Your task to perform on an android device: choose inbox layout in the gmail app Image 0: 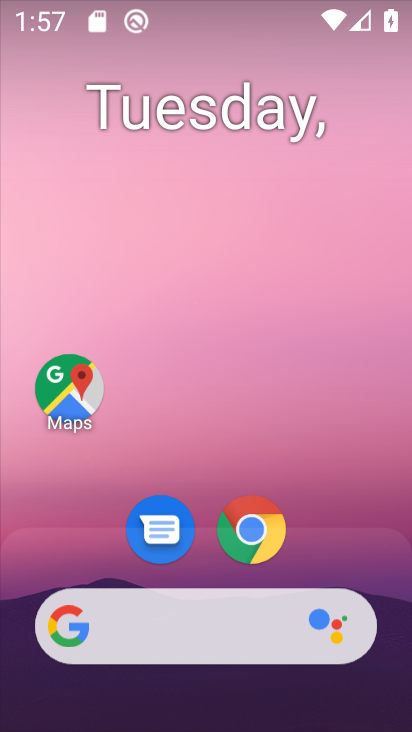
Step 0: drag from (194, 514) to (256, 311)
Your task to perform on an android device: choose inbox layout in the gmail app Image 1: 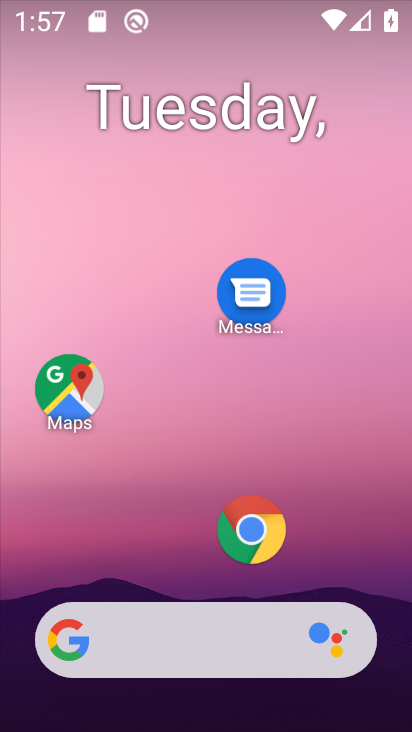
Step 1: drag from (166, 438) to (148, 137)
Your task to perform on an android device: choose inbox layout in the gmail app Image 2: 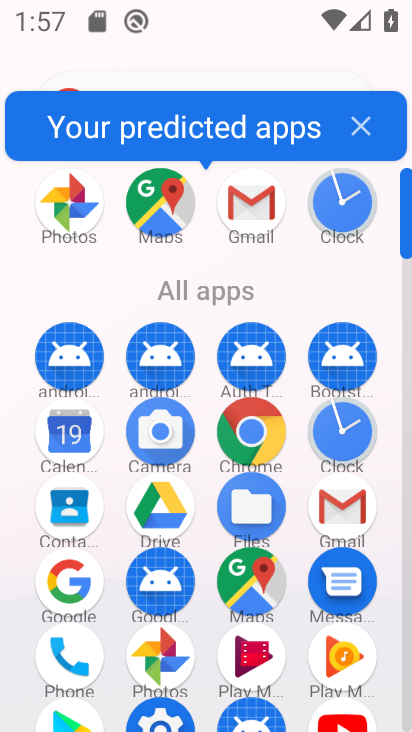
Step 2: click (249, 196)
Your task to perform on an android device: choose inbox layout in the gmail app Image 3: 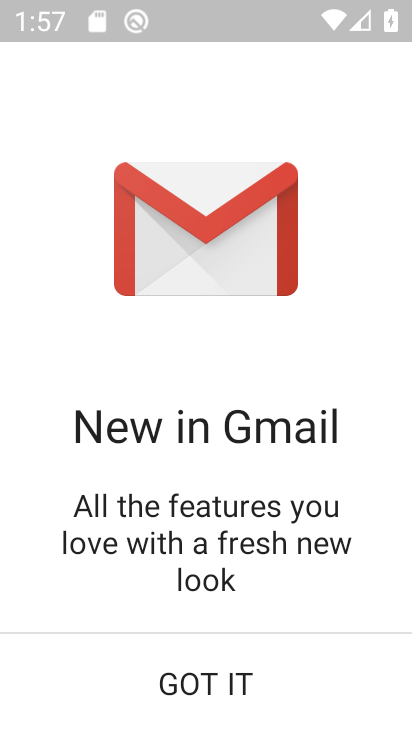
Step 3: click (187, 682)
Your task to perform on an android device: choose inbox layout in the gmail app Image 4: 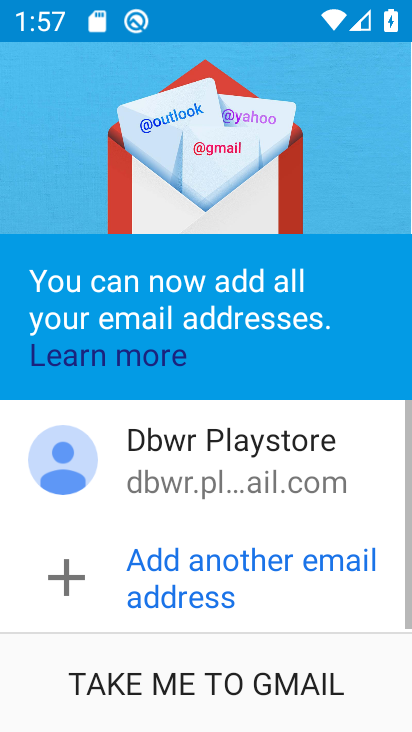
Step 4: click (195, 679)
Your task to perform on an android device: choose inbox layout in the gmail app Image 5: 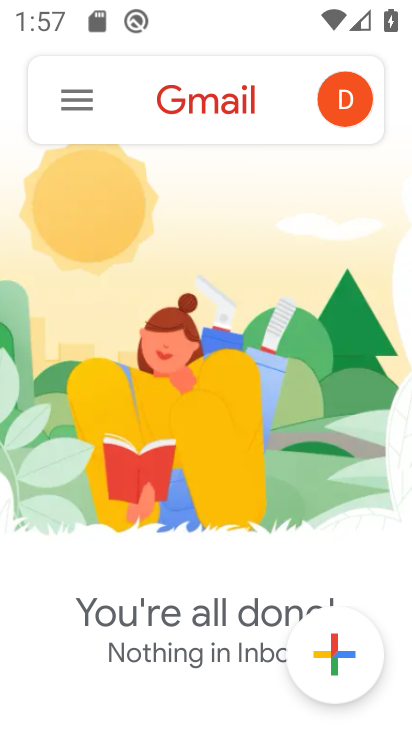
Step 5: click (71, 98)
Your task to perform on an android device: choose inbox layout in the gmail app Image 6: 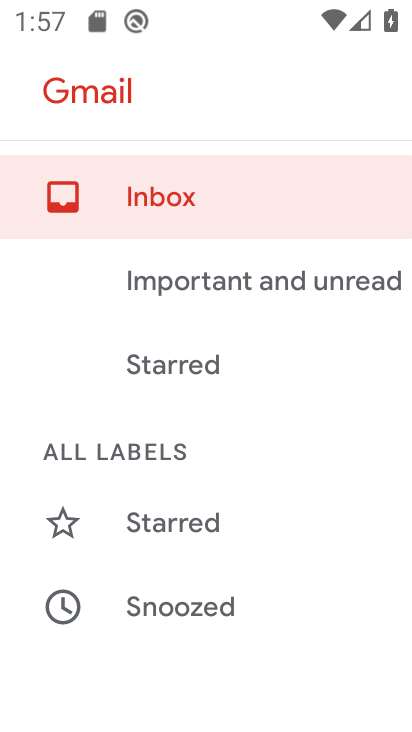
Step 6: drag from (247, 520) to (303, 167)
Your task to perform on an android device: choose inbox layout in the gmail app Image 7: 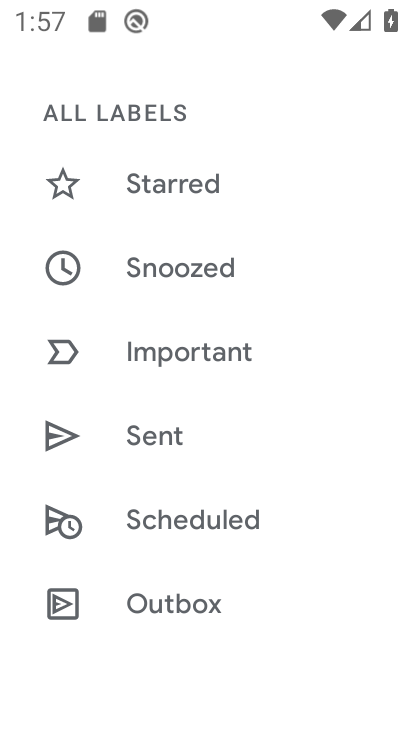
Step 7: drag from (279, 564) to (223, 264)
Your task to perform on an android device: choose inbox layout in the gmail app Image 8: 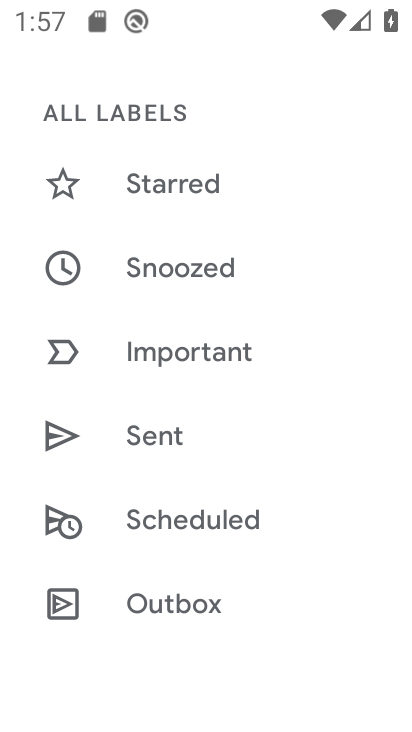
Step 8: drag from (215, 580) to (209, 76)
Your task to perform on an android device: choose inbox layout in the gmail app Image 9: 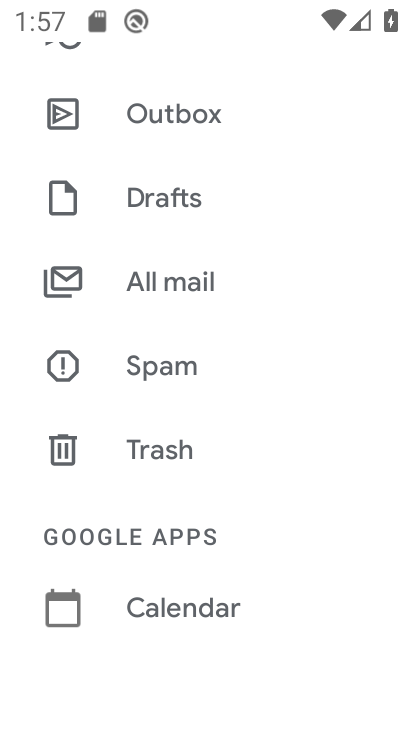
Step 9: drag from (200, 558) to (186, 271)
Your task to perform on an android device: choose inbox layout in the gmail app Image 10: 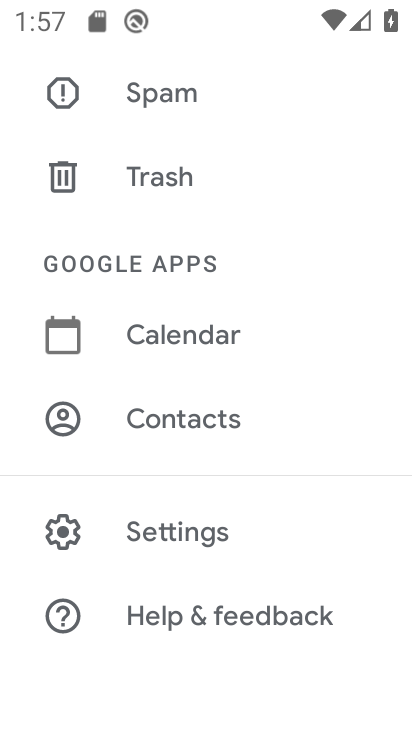
Step 10: click (135, 528)
Your task to perform on an android device: choose inbox layout in the gmail app Image 11: 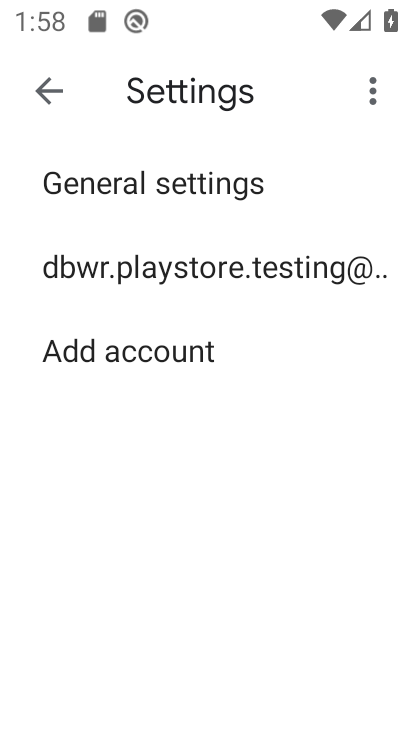
Step 11: click (143, 276)
Your task to perform on an android device: choose inbox layout in the gmail app Image 12: 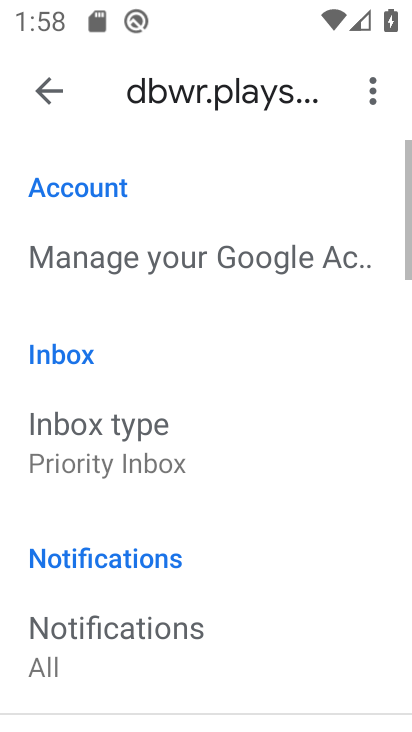
Step 12: drag from (212, 584) to (200, 523)
Your task to perform on an android device: choose inbox layout in the gmail app Image 13: 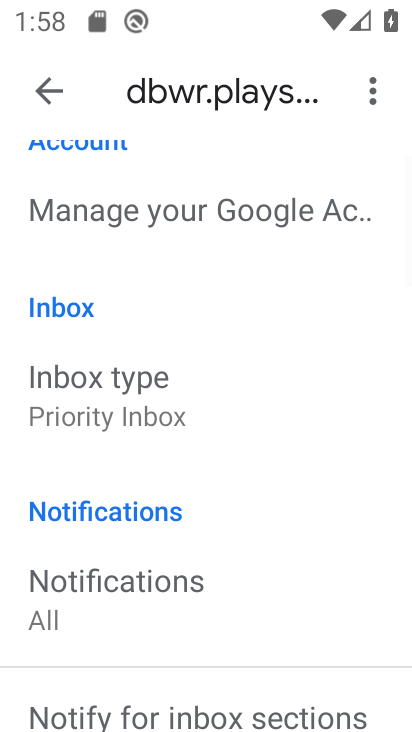
Step 13: click (123, 415)
Your task to perform on an android device: choose inbox layout in the gmail app Image 14: 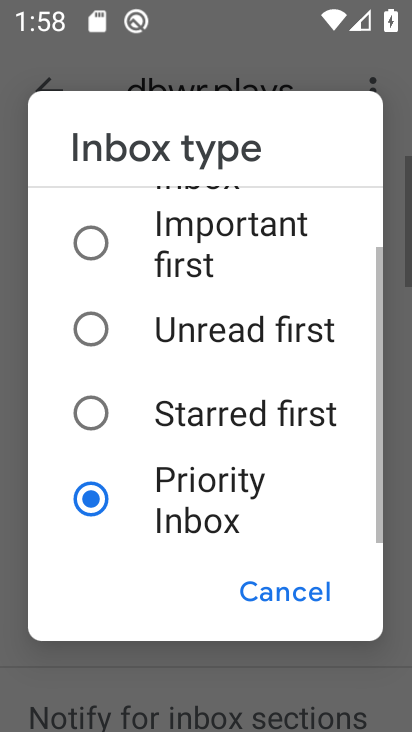
Step 14: drag from (132, 358) to (129, 488)
Your task to perform on an android device: choose inbox layout in the gmail app Image 15: 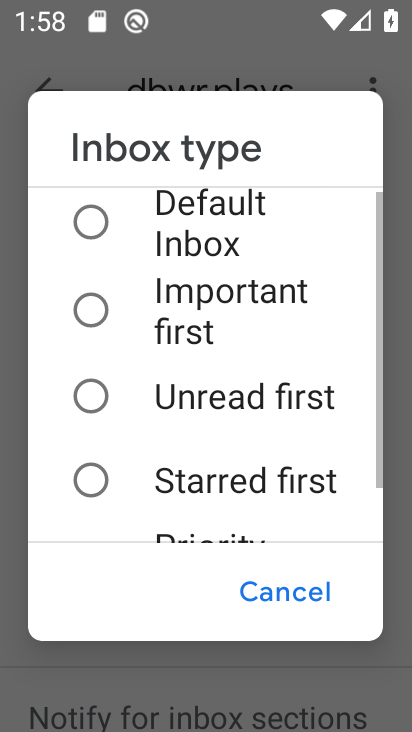
Step 15: click (87, 235)
Your task to perform on an android device: choose inbox layout in the gmail app Image 16: 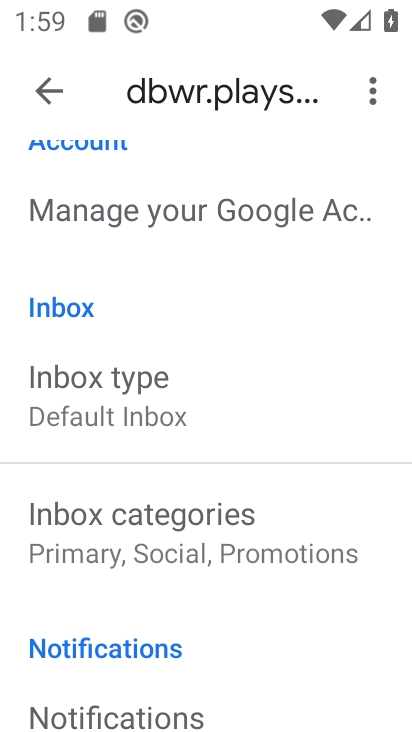
Step 16: task complete